Your task to perform on an android device: Search for a custom made wallet on Etsy Image 0: 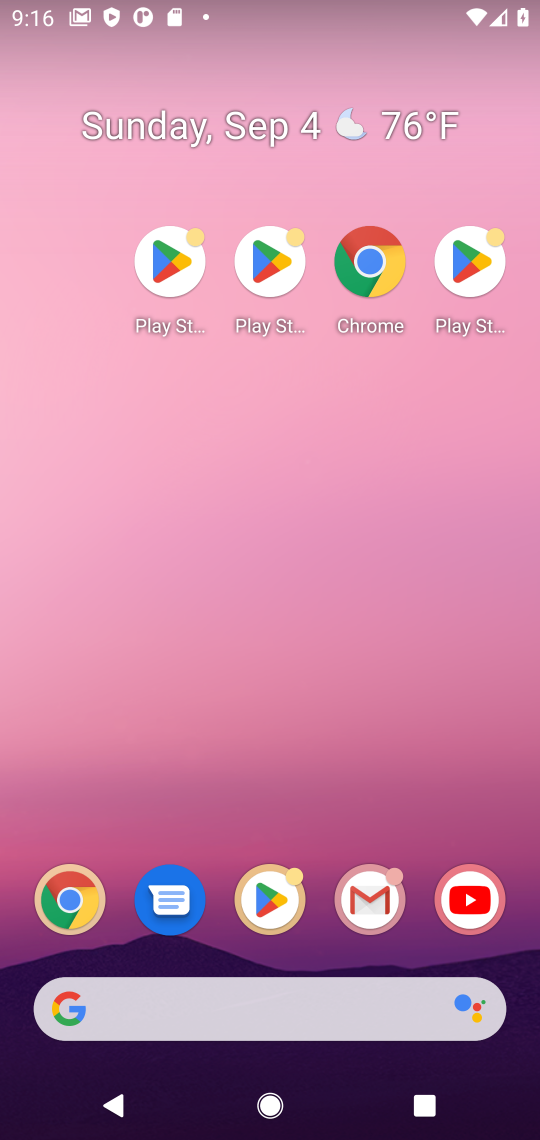
Step 0: drag from (296, 739) to (296, 111)
Your task to perform on an android device: Search for a custom made wallet on Etsy Image 1: 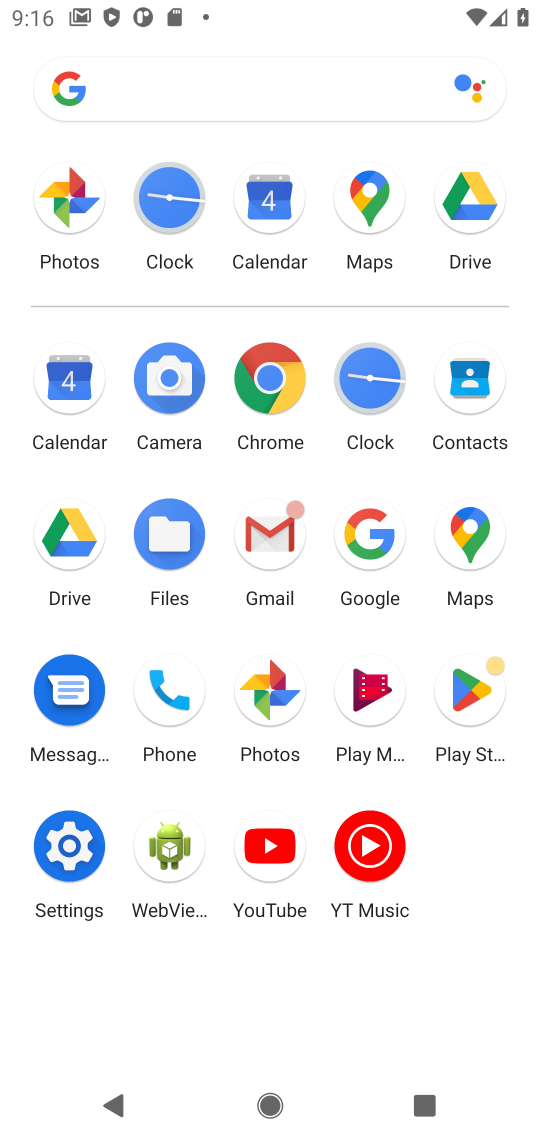
Step 1: click (266, 370)
Your task to perform on an android device: Search for a custom made wallet on Etsy Image 2: 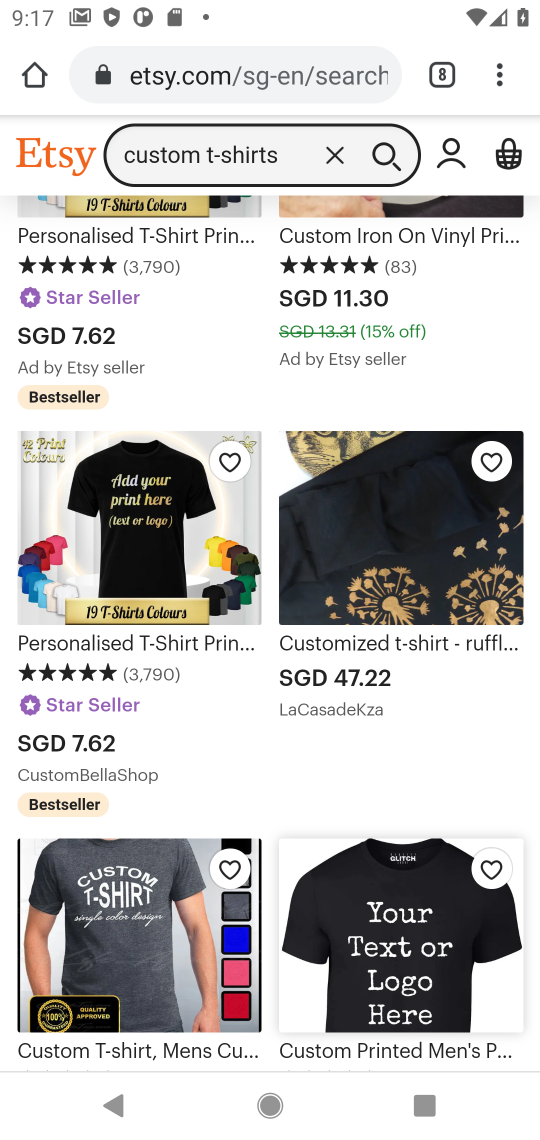
Step 2: click (343, 156)
Your task to perform on an android device: Search for a custom made wallet on Etsy Image 3: 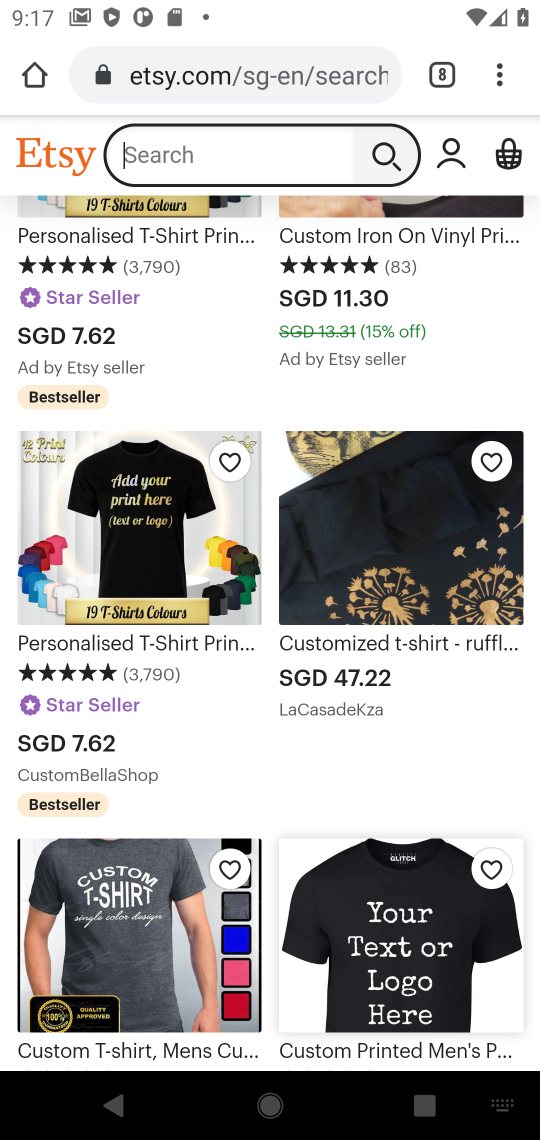
Step 3: type "custom made wallet"
Your task to perform on an android device: Search for a custom made wallet on Etsy Image 4: 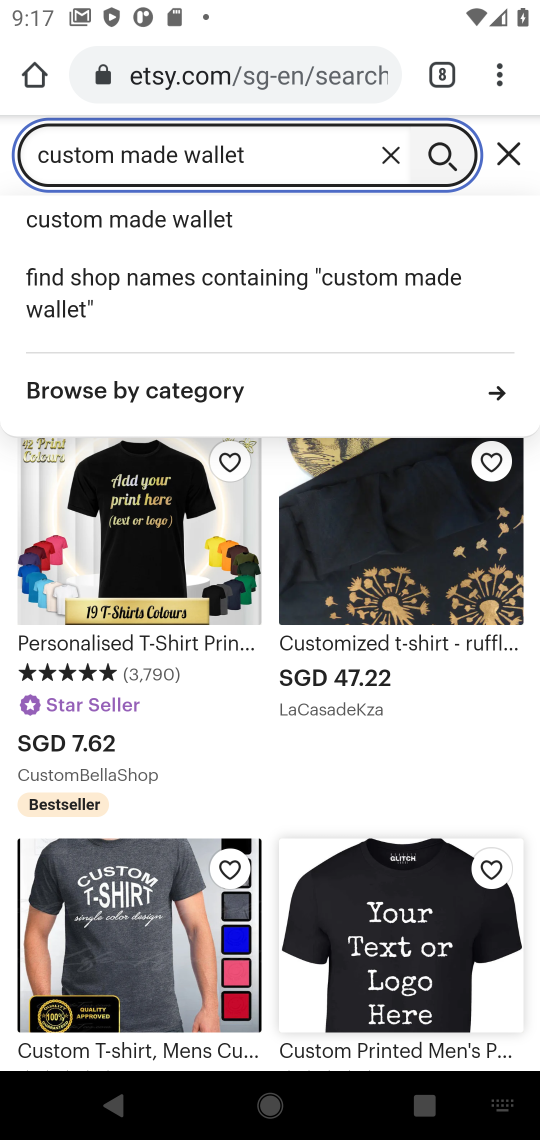
Step 4: click (436, 148)
Your task to perform on an android device: Search for a custom made wallet on Etsy Image 5: 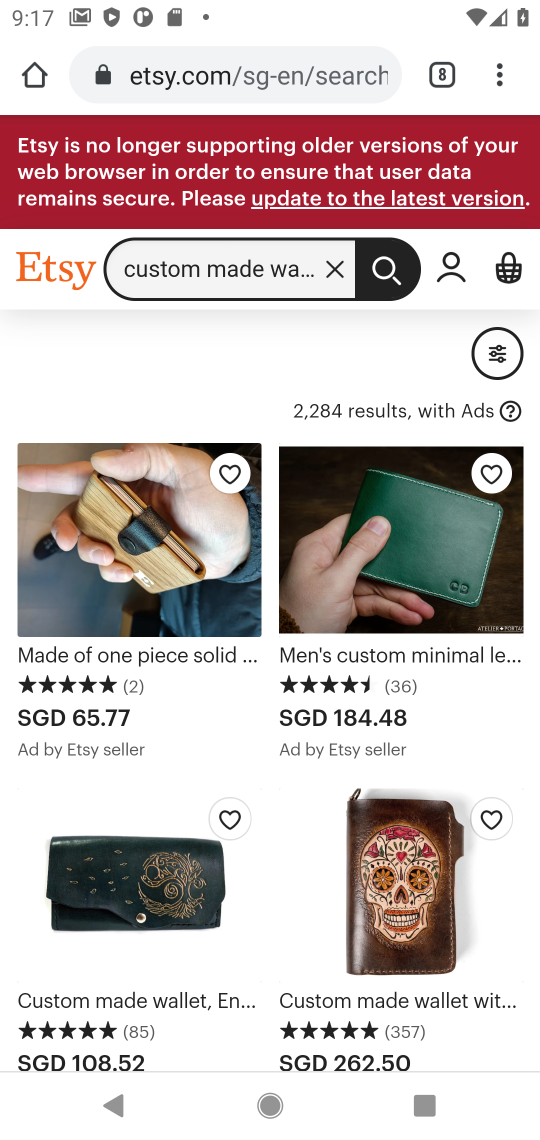
Step 5: task complete